Your task to perform on an android device: Open the web browser Image 0: 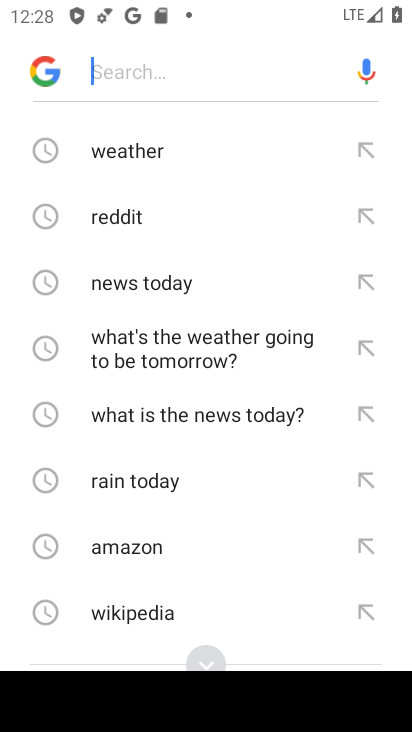
Step 0: press home button
Your task to perform on an android device: Open the web browser Image 1: 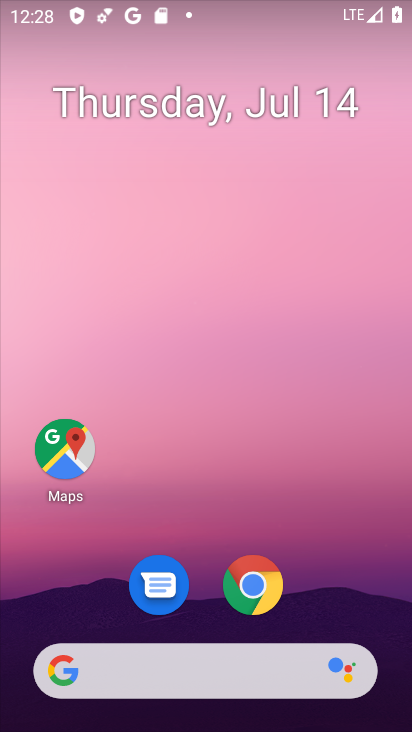
Step 1: click (235, 680)
Your task to perform on an android device: Open the web browser Image 2: 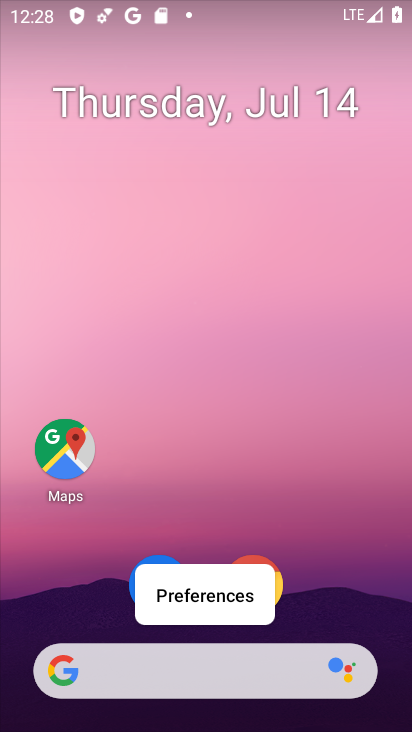
Step 2: click (204, 697)
Your task to perform on an android device: Open the web browser Image 3: 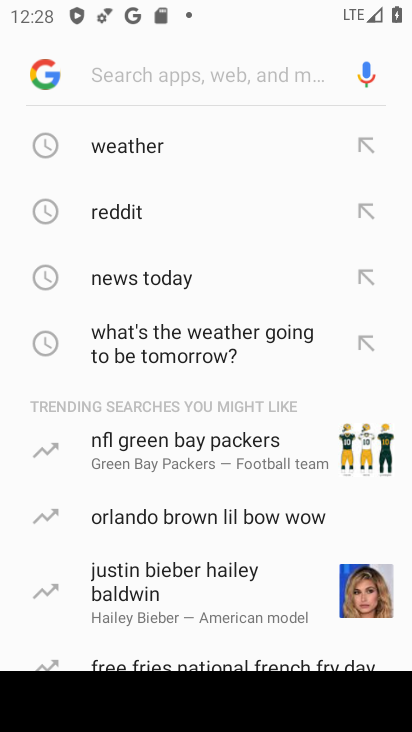
Step 3: task complete